Your task to perform on an android device: Open maps Image 0: 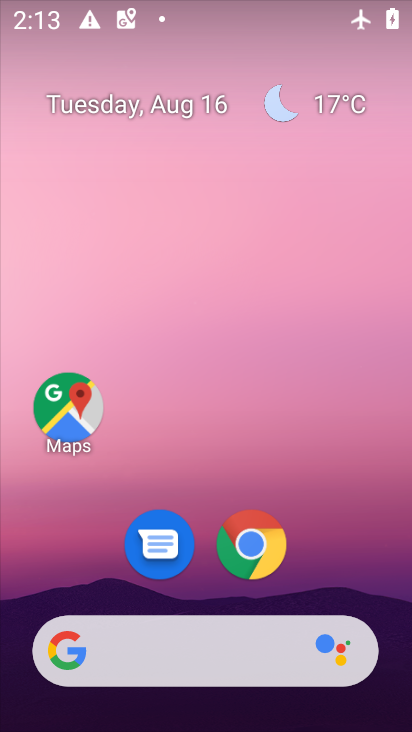
Step 0: click (68, 409)
Your task to perform on an android device: Open maps Image 1: 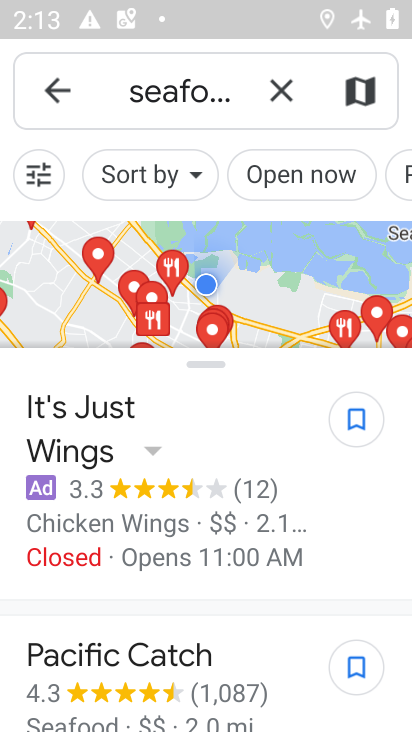
Step 1: task complete